Your task to perform on an android device: Show me popular videos on Youtube Image 0: 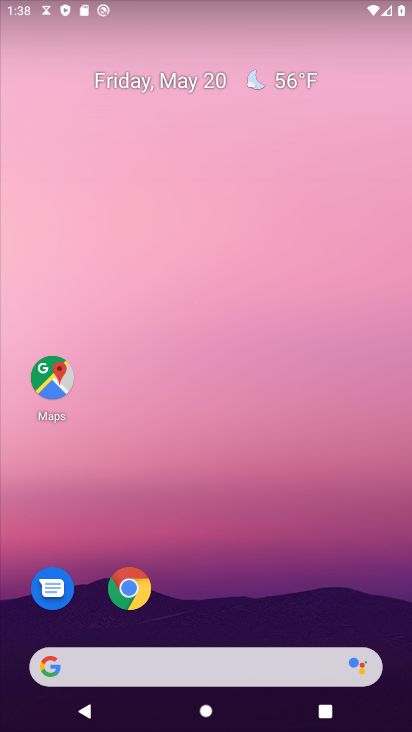
Step 0: press home button
Your task to perform on an android device: Show me popular videos on Youtube Image 1: 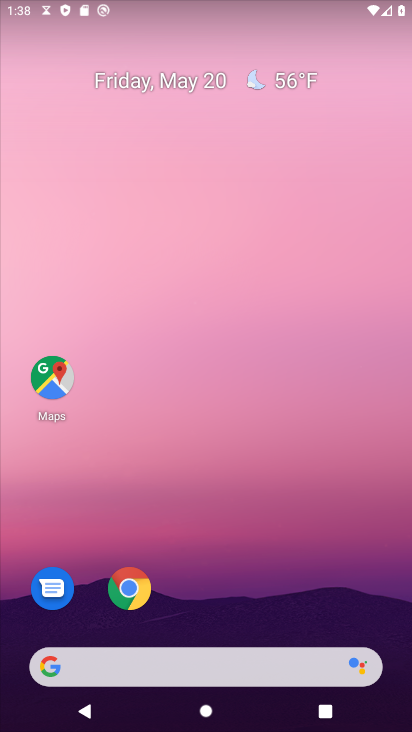
Step 1: drag from (56, 585) to (193, 291)
Your task to perform on an android device: Show me popular videos on Youtube Image 2: 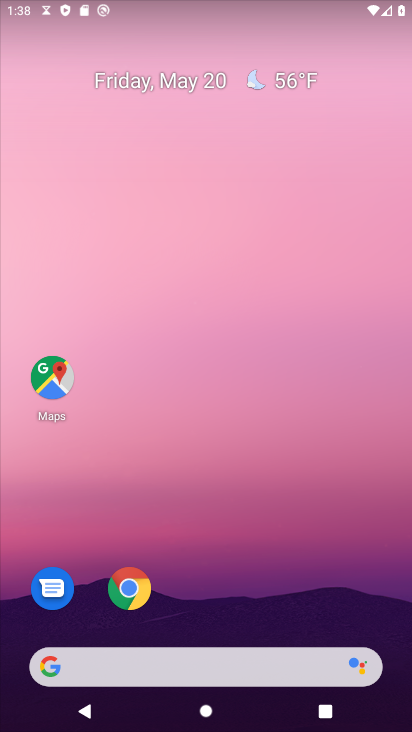
Step 2: drag from (46, 547) to (206, 105)
Your task to perform on an android device: Show me popular videos on Youtube Image 3: 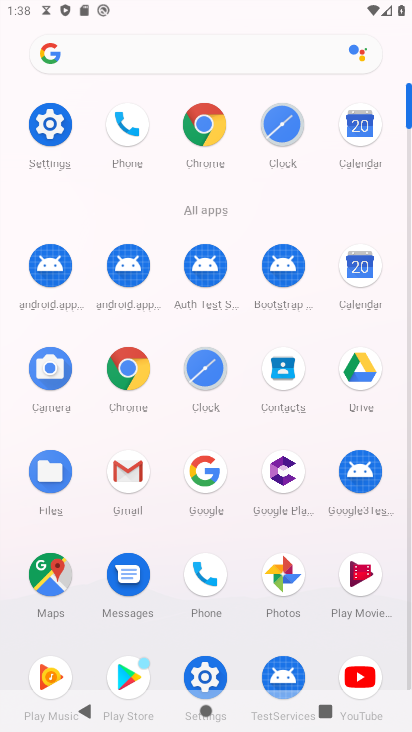
Step 3: click (356, 669)
Your task to perform on an android device: Show me popular videos on Youtube Image 4: 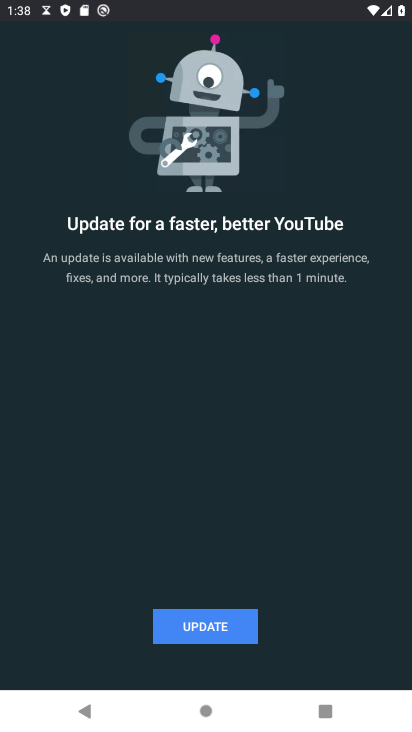
Step 4: task complete